Your task to perform on an android device: change notification settings in the gmail app Image 0: 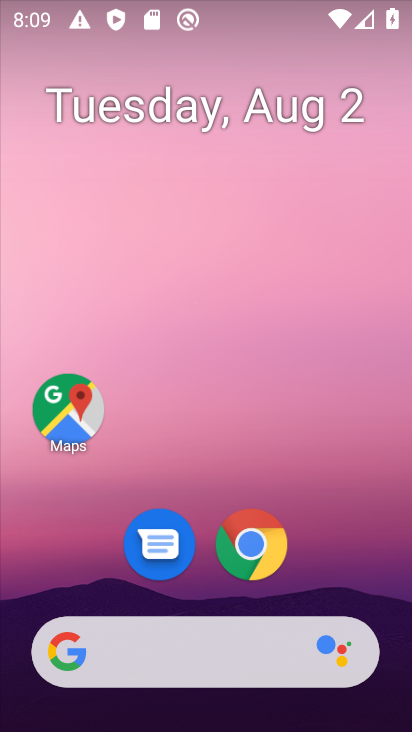
Step 0: drag from (219, 594) to (39, 4)
Your task to perform on an android device: change notification settings in the gmail app Image 1: 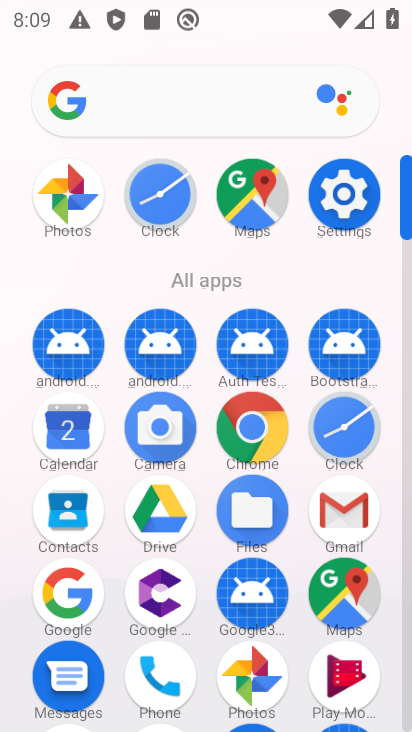
Step 1: click (329, 504)
Your task to perform on an android device: change notification settings in the gmail app Image 2: 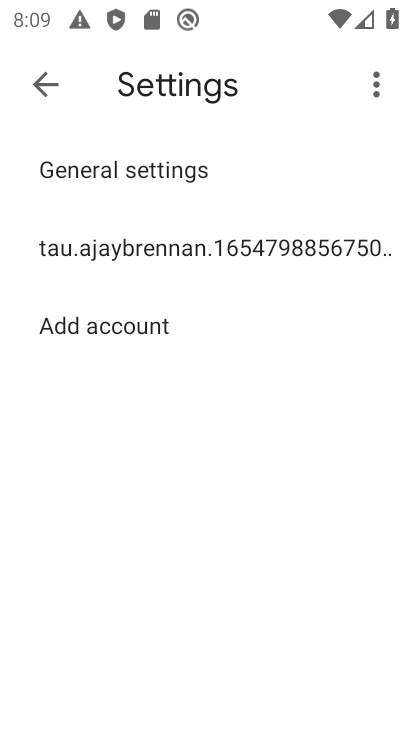
Step 2: click (118, 251)
Your task to perform on an android device: change notification settings in the gmail app Image 3: 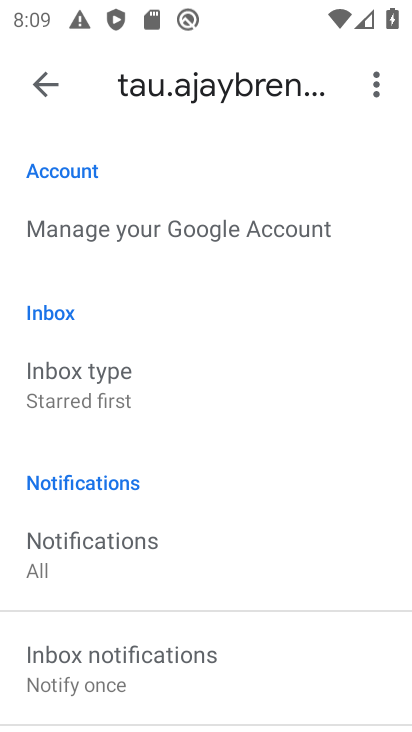
Step 3: click (58, 572)
Your task to perform on an android device: change notification settings in the gmail app Image 4: 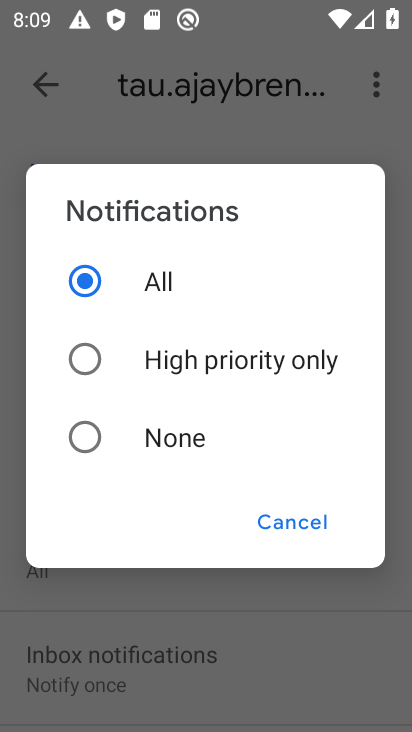
Step 4: click (128, 352)
Your task to perform on an android device: change notification settings in the gmail app Image 5: 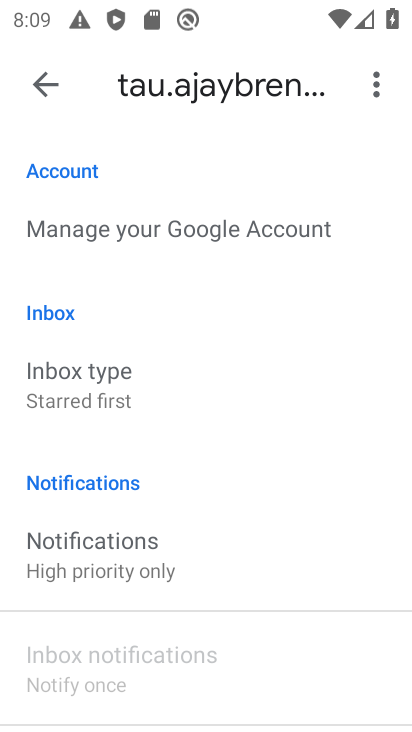
Step 5: task complete